Your task to perform on an android device: delete browsing data in the chrome app Image 0: 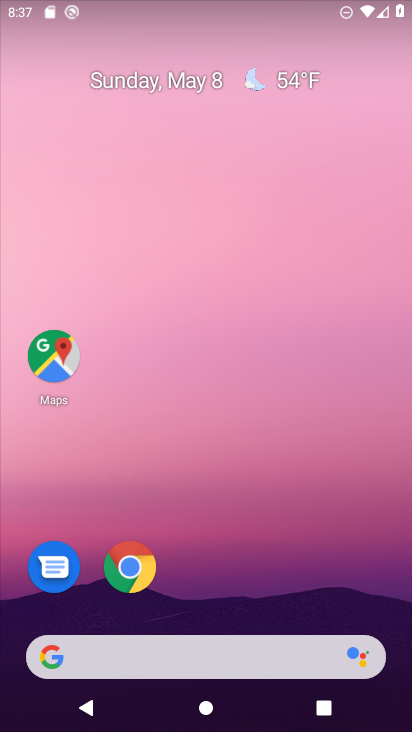
Step 0: drag from (318, 538) to (365, 69)
Your task to perform on an android device: delete browsing data in the chrome app Image 1: 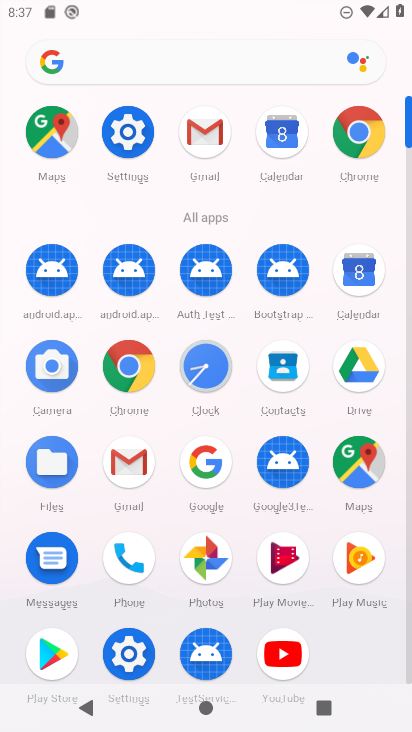
Step 1: click (372, 132)
Your task to perform on an android device: delete browsing data in the chrome app Image 2: 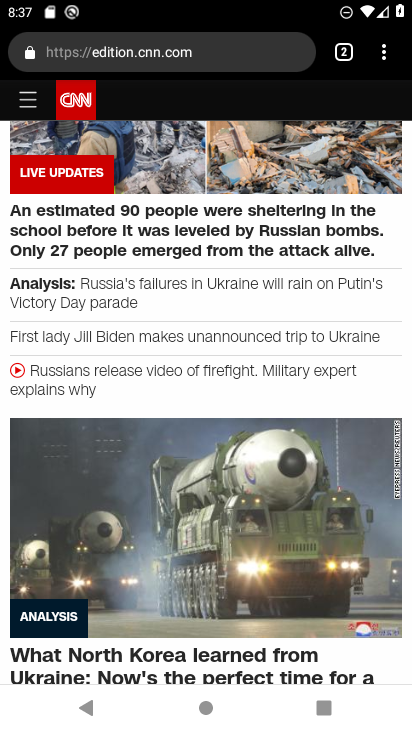
Step 2: drag from (390, 44) to (243, 298)
Your task to perform on an android device: delete browsing data in the chrome app Image 3: 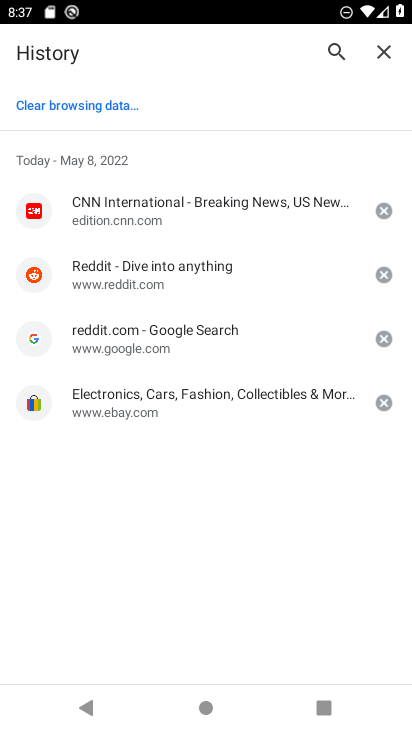
Step 3: click (42, 111)
Your task to perform on an android device: delete browsing data in the chrome app Image 4: 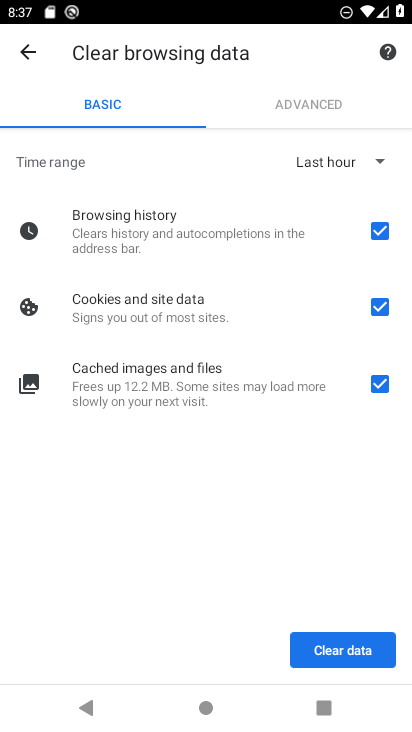
Step 4: click (334, 658)
Your task to perform on an android device: delete browsing data in the chrome app Image 5: 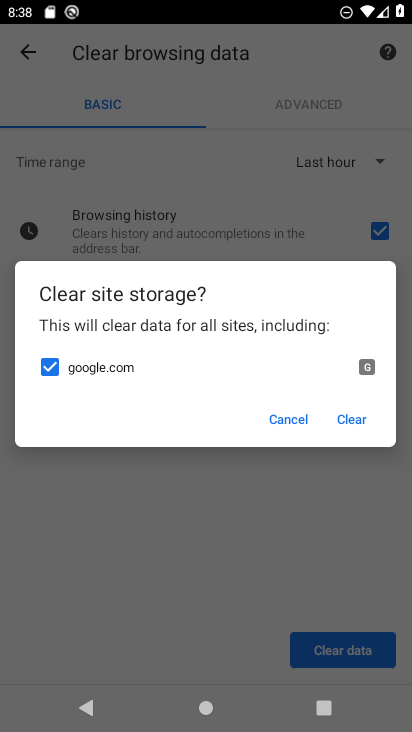
Step 5: click (349, 419)
Your task to perform on an android device: delete browsing data in the chrome app Image 6: 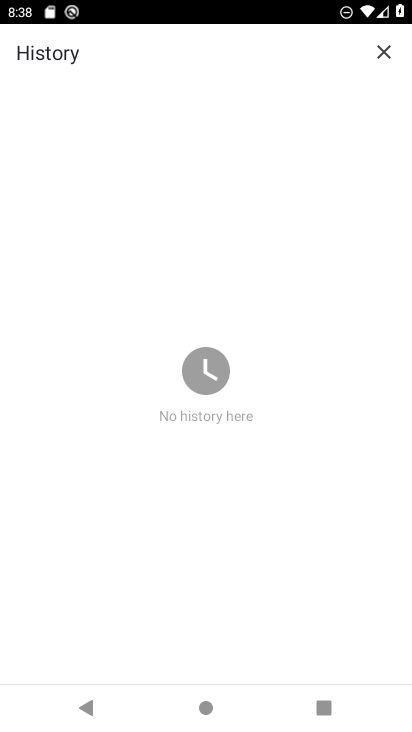
Step 6: task complete